Your task to perform on an android device: set the stopwatch Image 0: 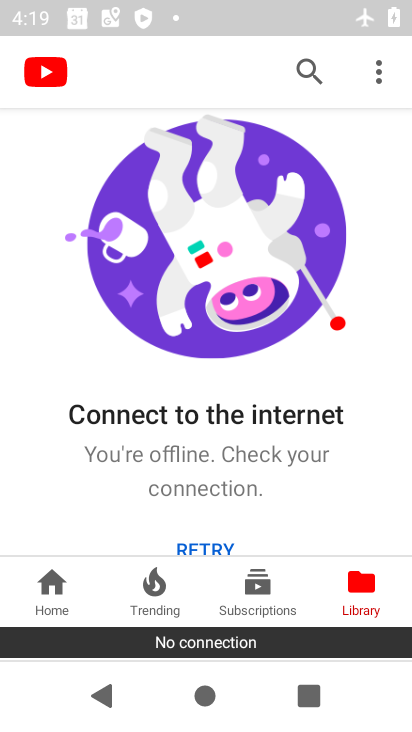
Step 0: press home button
Your task to perform on an android device: set the stopwatch Image 1: 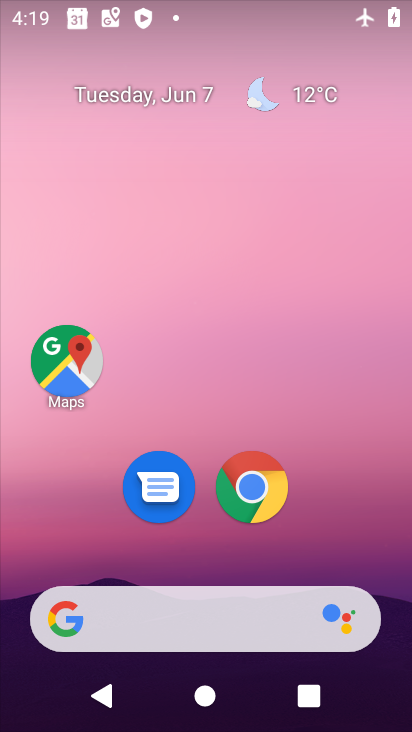
Step 1: drag from (188, 557) to (273, 4)
Your task to perform on an android device: set the stopwatch Image 2: 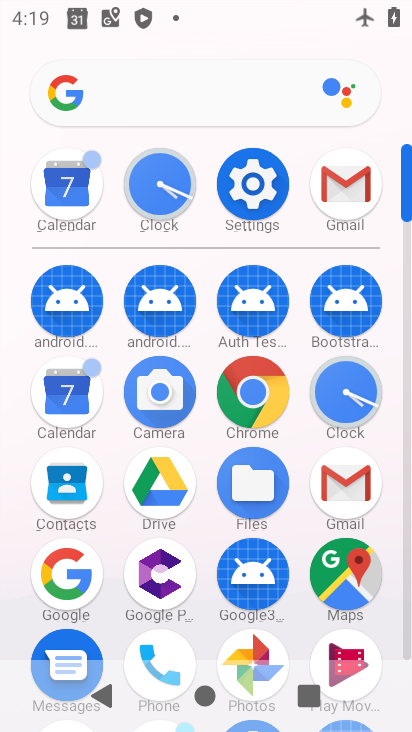
Step 2: click (352, 405)
Your task to perform on an android device: set the stopwatch Image 3: 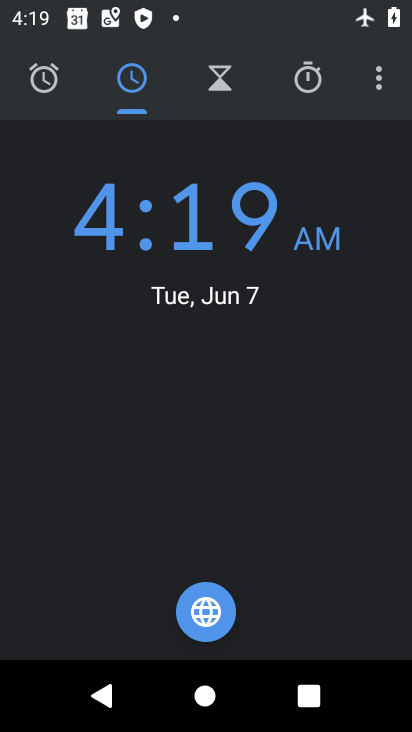
Step 3: click (315, 79)
Your task to perform on an android device: set the stopwatch Image 4: 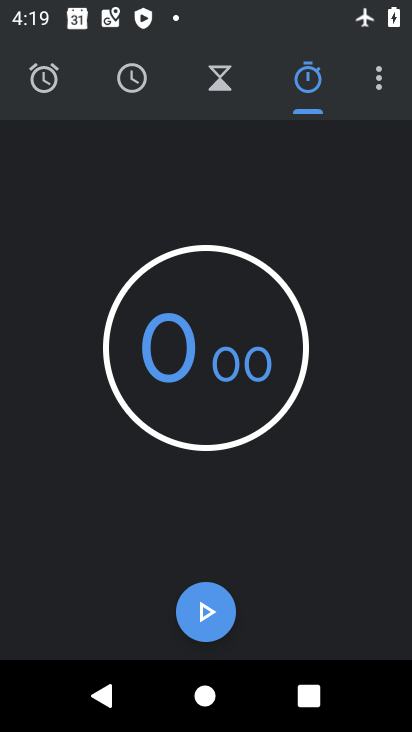
Step 4: click (194, 333)
Your task to perform on an android device: set the stopwatch Image 5: 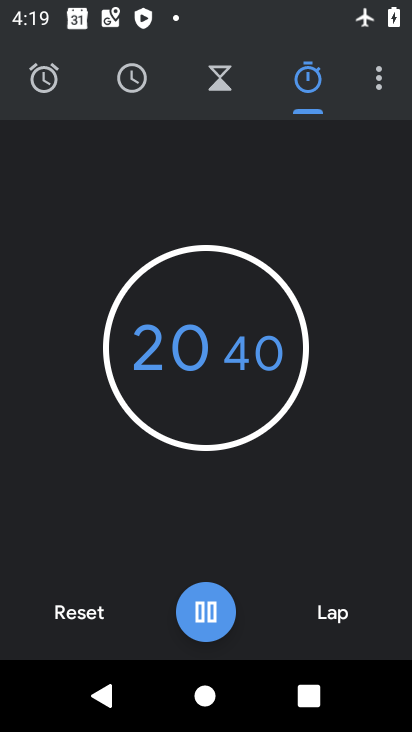
Step 5: click (190, 365)
Your task to perform on an android device: set the stopwatch Image 6: 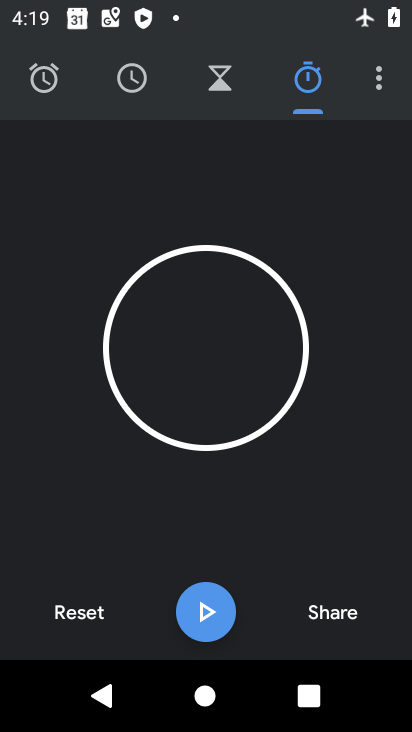
Step 6: task complete